Your task to perform on an android device: Is it going to rain today? Image 0: 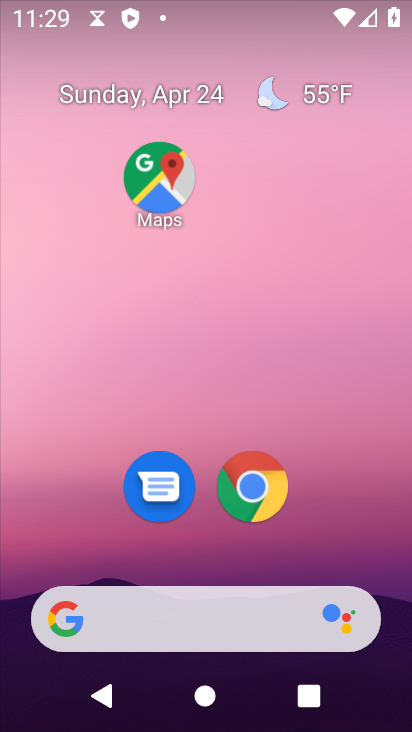
Step 0: click (330, 93)
Your task to perform on an android device: Is it going to rain today? Image 1: 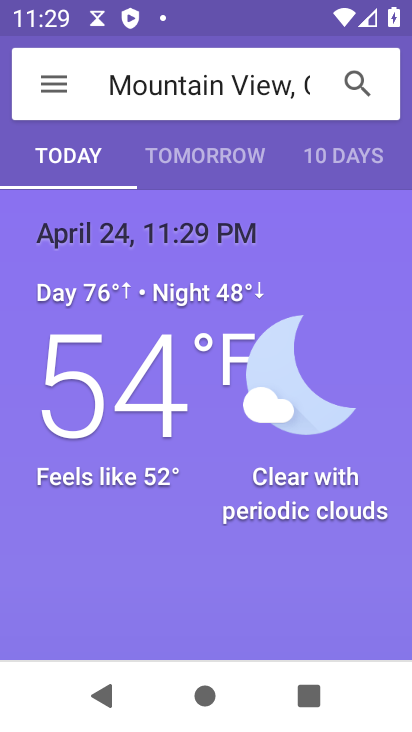
Step 1: task complete